Your task to perform on an android device: What is the news today? Image 0: 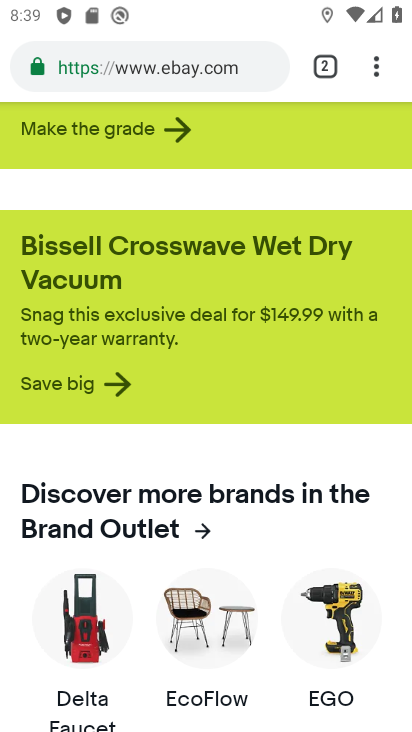
Step 0: press home button
Your task to perform on an android device: What is the news today? Image 1: 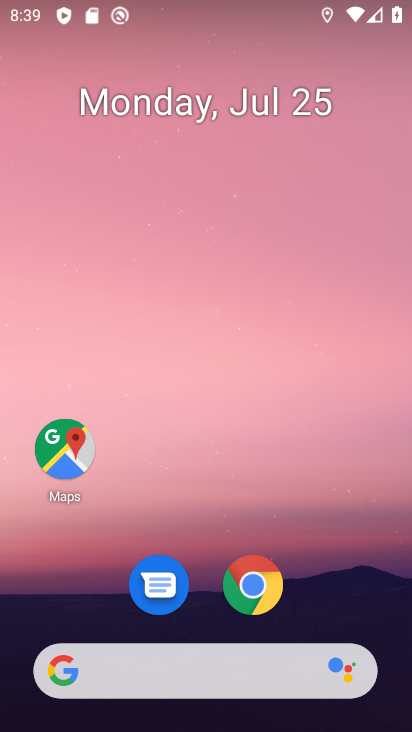
Step 1: click (145, 668)
Your task to perform on an android device: What is the news today? Image 2: 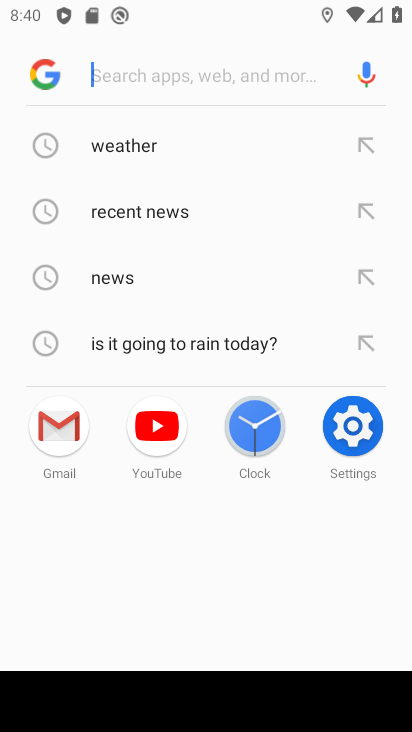
Step 2: click (150, 213)
Your task to perform on an android device: What is the news today? Image 3: 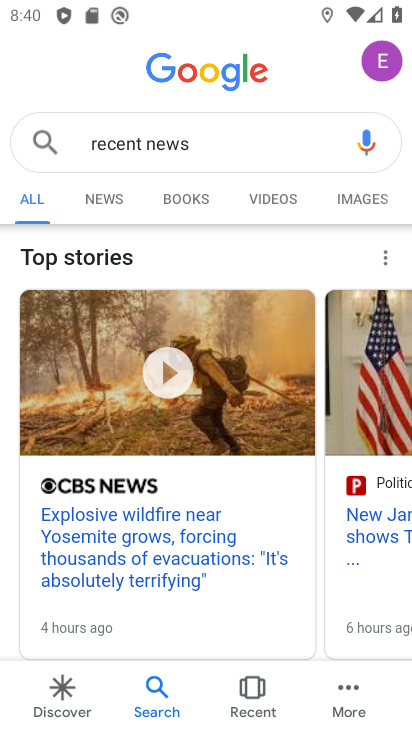
Step 3: click (101, 200)
Your task to perform on an android device: What is the news today? Image 4: 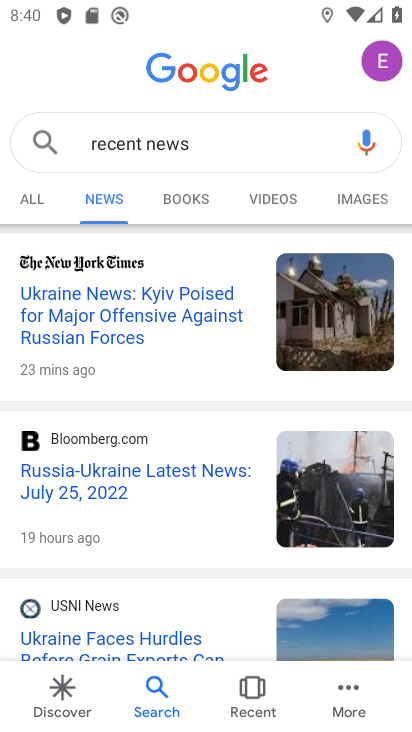
Step 4: task complete